Your task to perform on an android device: make emails show in primary in the gmail app Image 0: 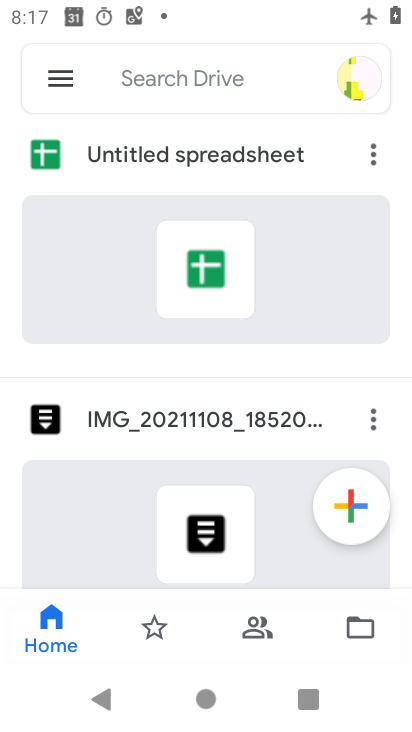
Step 0: press home button
Your task to perform on an android device: make emails show in primary in the gmail app Image 1: 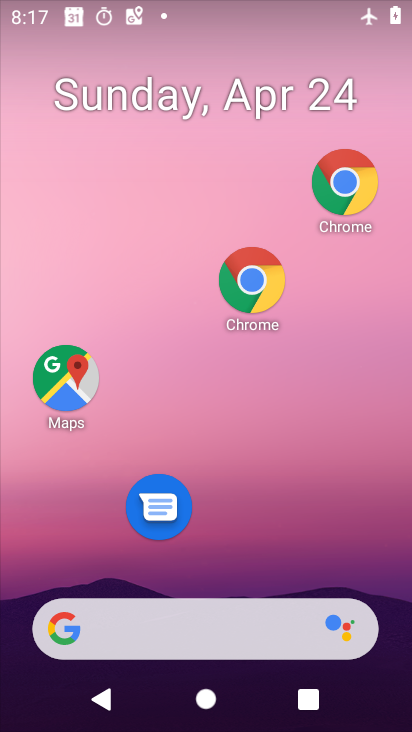
Step 1: drag from (204, 242) to (190, 77)
Your task to perform on an android device: make emails show in primary in the gmail app Image 2: 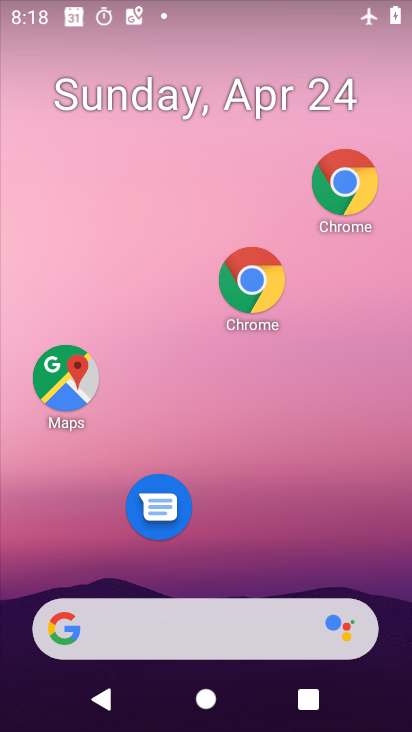
Step 2: drag from (260, 645) to (230, 315)
Your task to perform on an android device: make emails show in primary in the gmail app Image 3: 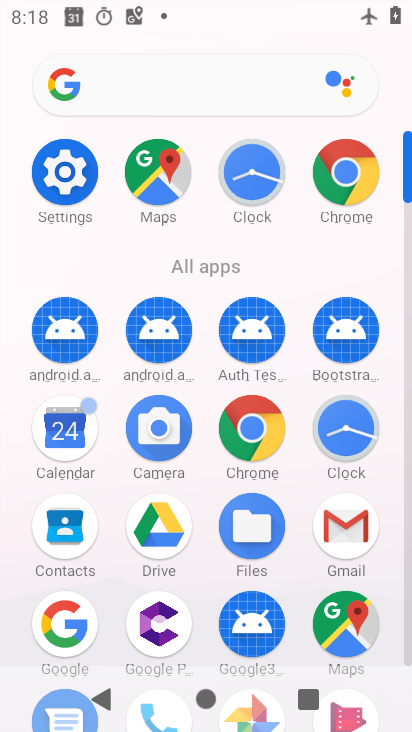
Step 3: click (325, 525)
Your task to perform on an android device: make emails show in primary in the gmail app Image 4: 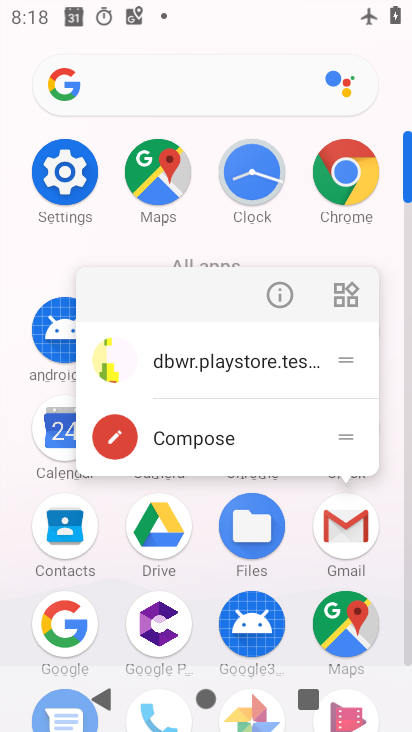
Step 4: click (352, 509)
Your task to perform on an android device: make emails show in primary in the gmail app Image 5: 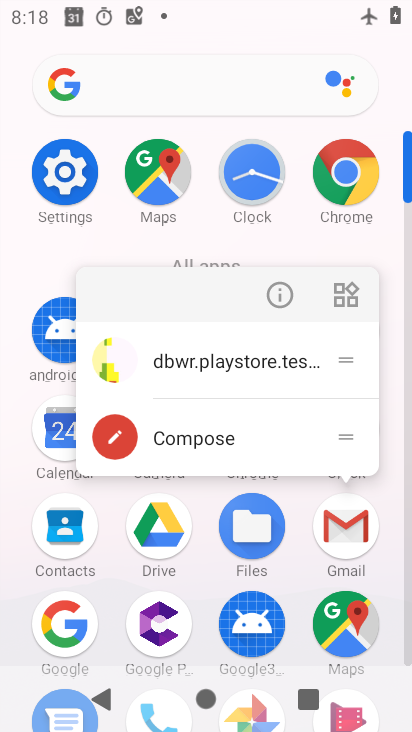
Step 5: click (217, 353)
Your task to perform on an android device: make emails show in primary in the gmail app Image 6: 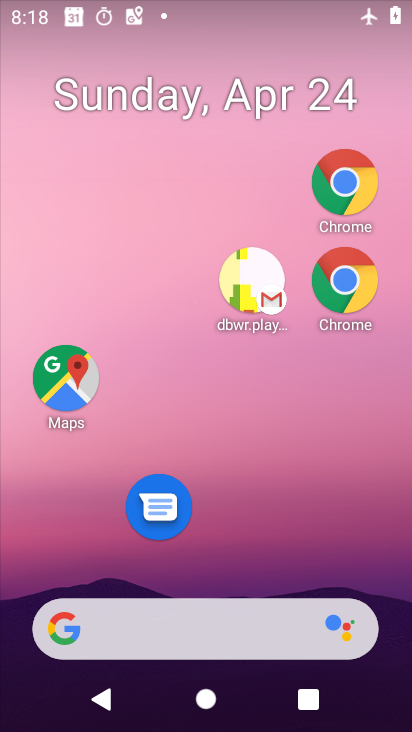
Step 6: drag from (244, 424) to (197, 140)
Your task to perform on an android device: make emails show in primary in the gmail app Image 7: 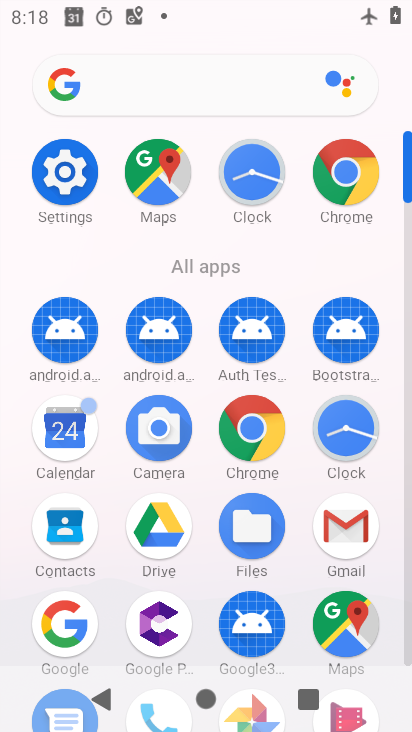
Step 7: click (344, 538)
Your task to perform on an android device: make emails show in primary in the gmail app Image 8: 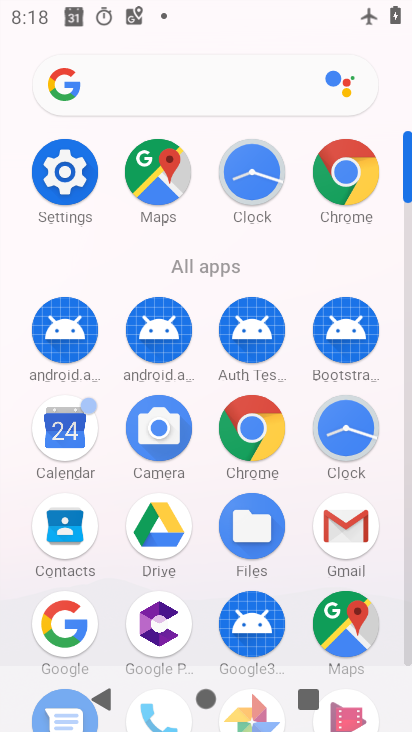
Step 8: click (344, 538)
Your task to perform on an android device: make emails show in primary in the gmail app Image 9: 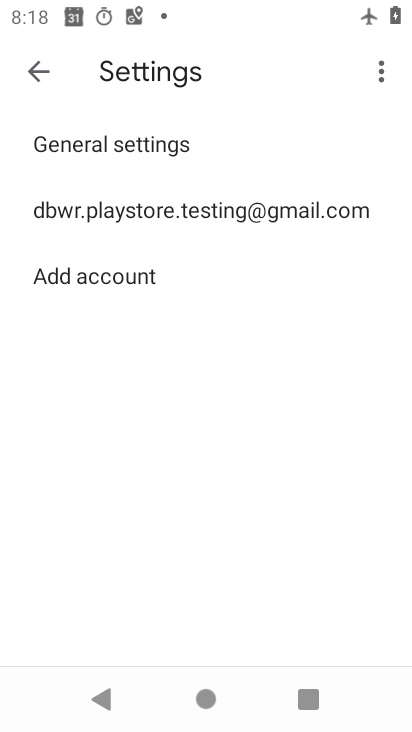
Step 9: click (137, 208)
Your task to perform on an android device: make emails show in primary in the gmail app Image 10: 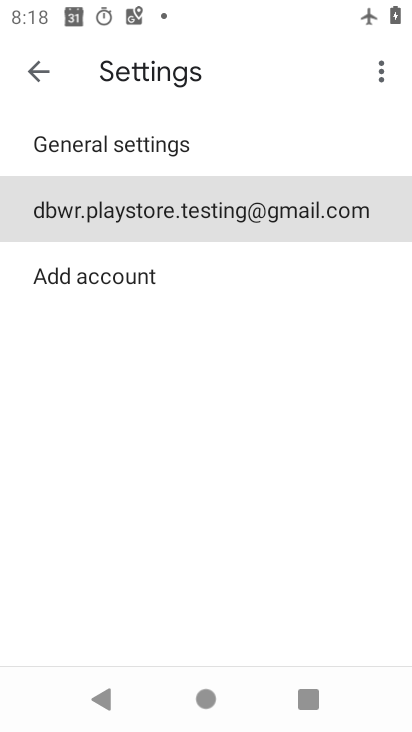
Step 10: click (137, 207)
Your task to perform on an android device: make emails show in primary in the gmail app Image 11: 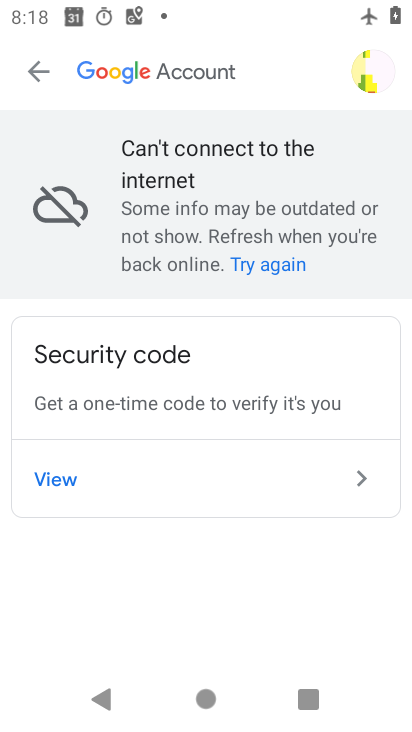
Step 11: click (35, 80)
Your task to perform on an android device: make emails show in primary in the gmail app Image 12: 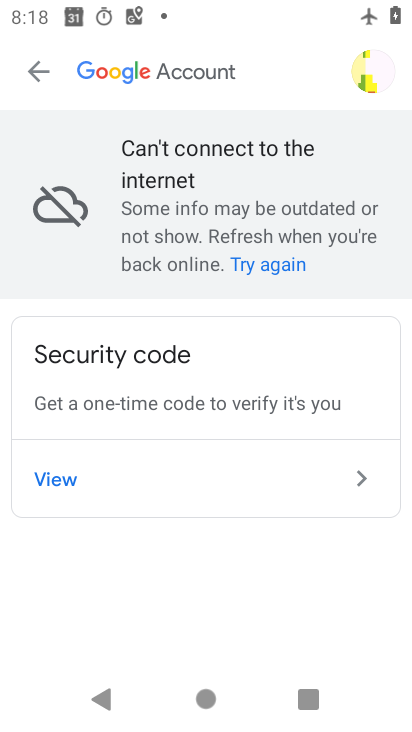
Step 12: click (35, 80)
Your task to perform on an android device: make emails show in primary in the gmail app Image 13: 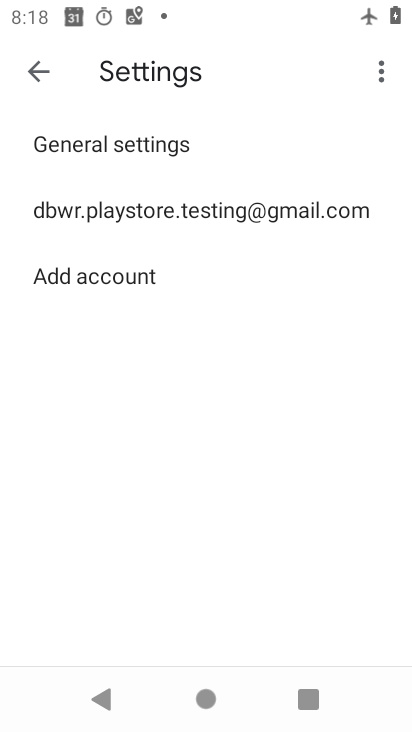
Step 13: click (105, 216)
Your task to perform on an android device: make emails show in primary in the gmail app Image 14: 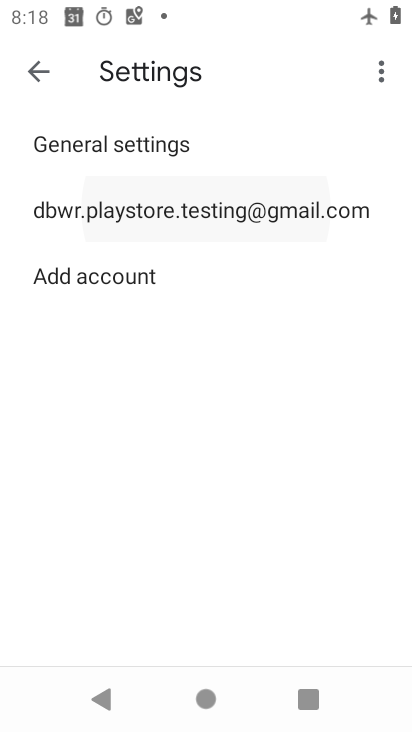
Step 14: click (105, 216)
Your task to perform on an android device: make emails show in primary in the gmail app Image 15: 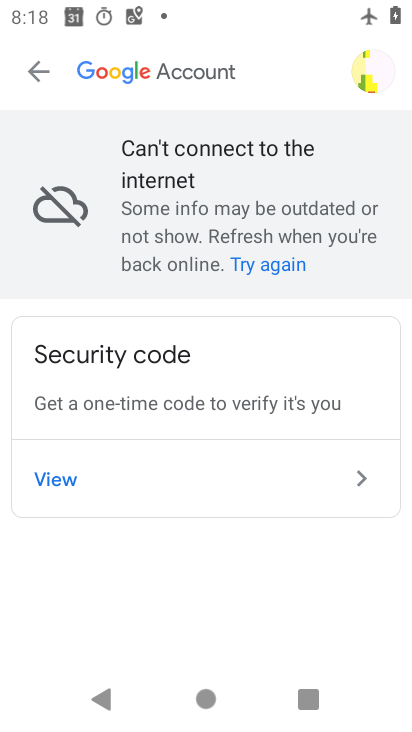
Step 15: click (28, 58)
Your task to perform on an android device: make emails show in primary in the gmail app Image 16: 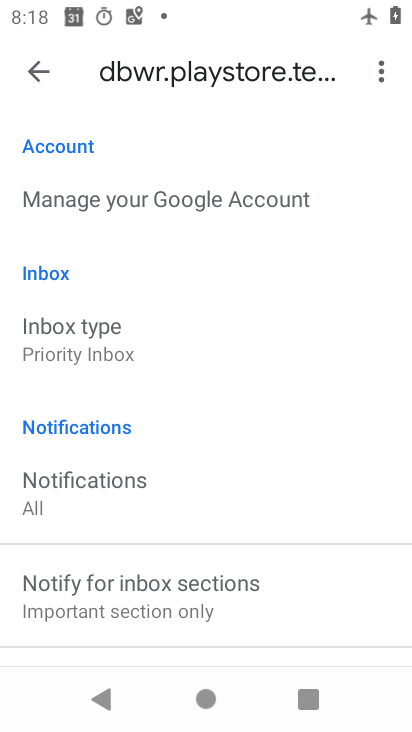
Step 16: task complete